Your task to perform on an android device: Search for Italian restaurants on Maps Image 0: 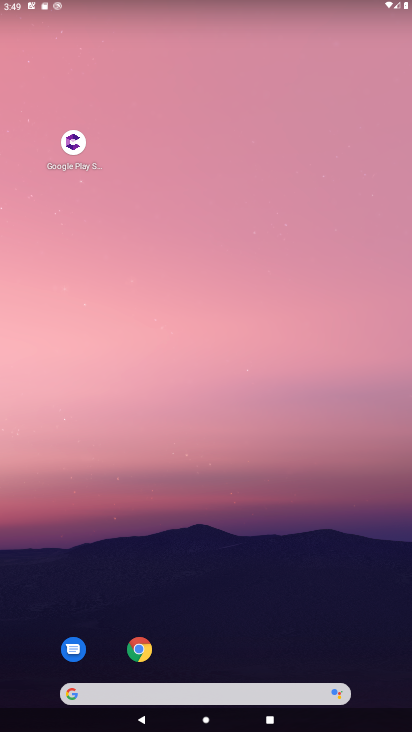
Step 0: drag from (366, 617) to (301, 104)
Your task to perform on an android device: Search for Italian restaurants on Maps Image 1: 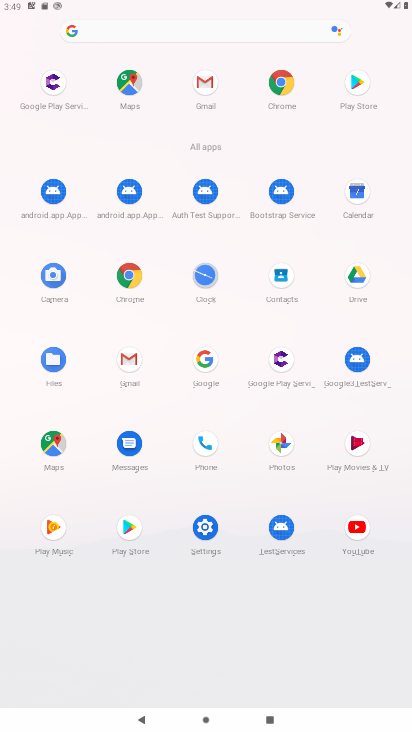
Step 1: click (55, 445)
Your task to perform on an android device: Search for Italian restaurants on Maps Image 2: 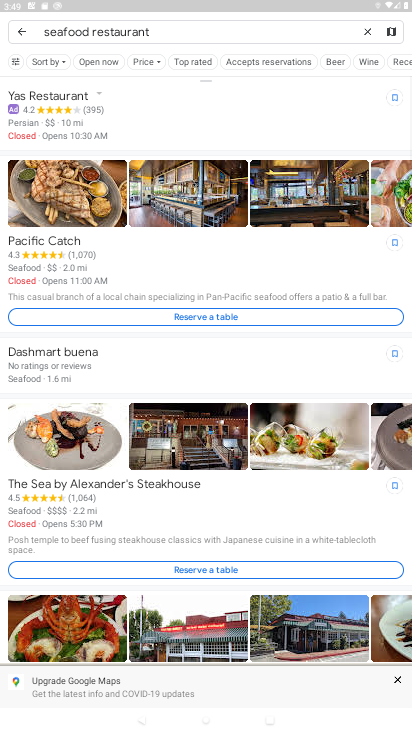
Step 2: click (367, 29)
Your task to perform on an android device: Search for Italian restaurants on Maps Image 3: 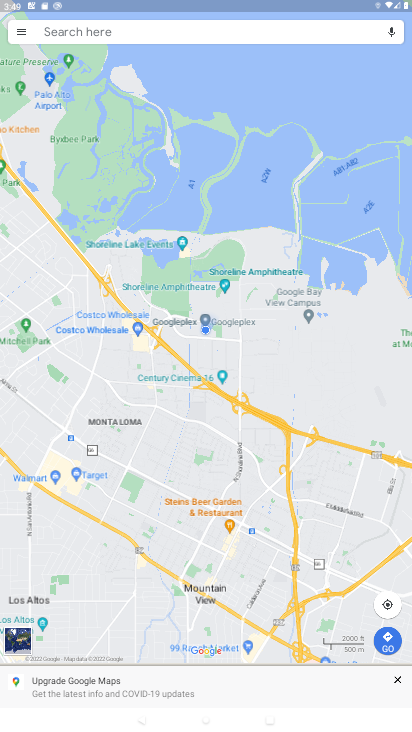
Step 3: click (80, 31)
Your task to perform on an android device: Search for Italian restaurants on Maps Image 4: 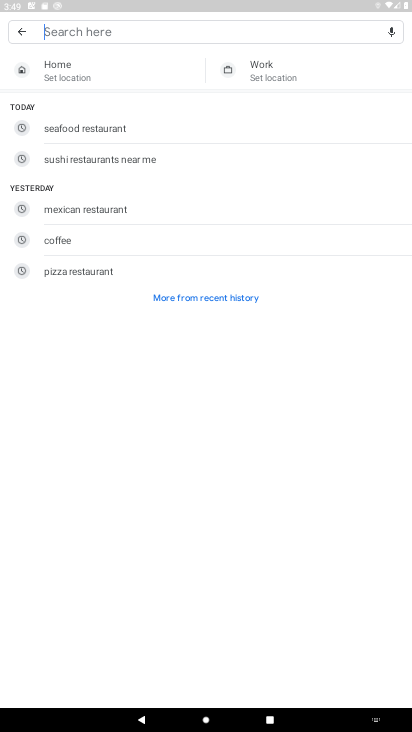
Step 4: type "italian restaurants"
Your task to perform on an android device: Search for Italian restaurants on Maps Image 5: 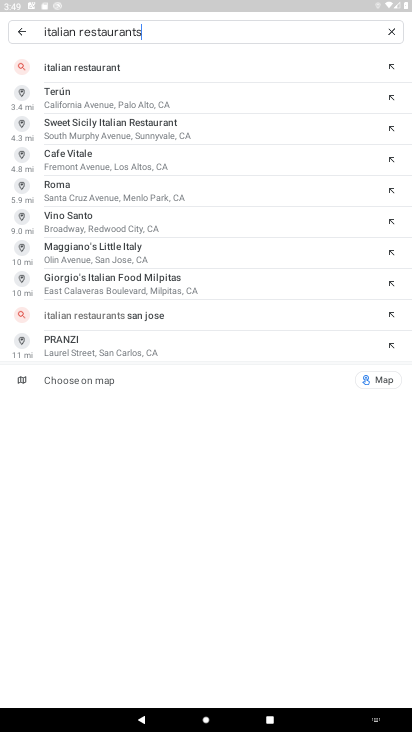
Step 5: click (84, 61)
Your task to perform on an android device: Search for Italian restaurants on Maps Image 6: 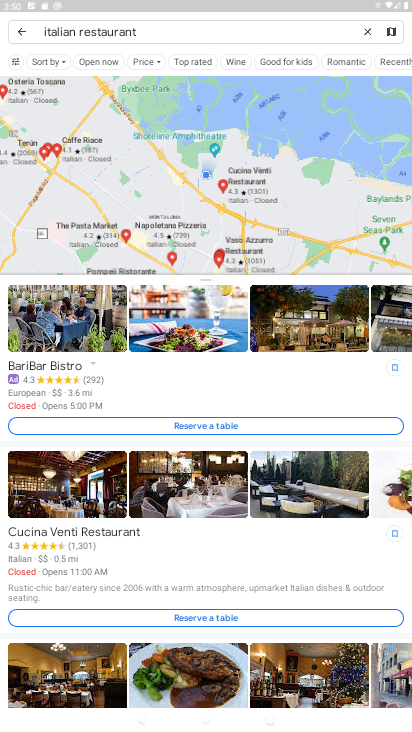
Step 6: task complete